Your task to perform on an android device: turn on the 24-hour format for clock Image 0: 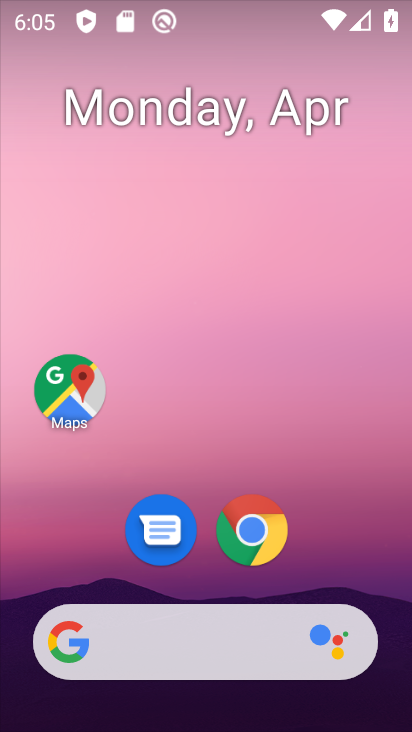
Step 0: drag from (214, 506) to (269, 115)
Your task to perform on an android device: turn on the 24-hour format for clock Image 1: 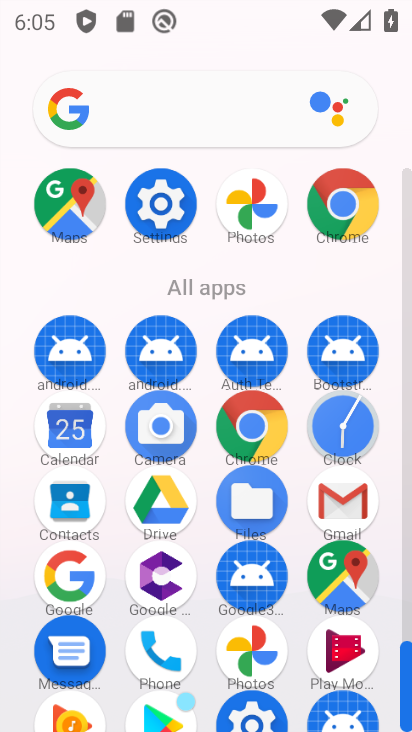
Step 1: click (341, 418)
Your task to perform on an android device: turn on the 24-hour format for clock Image 2: 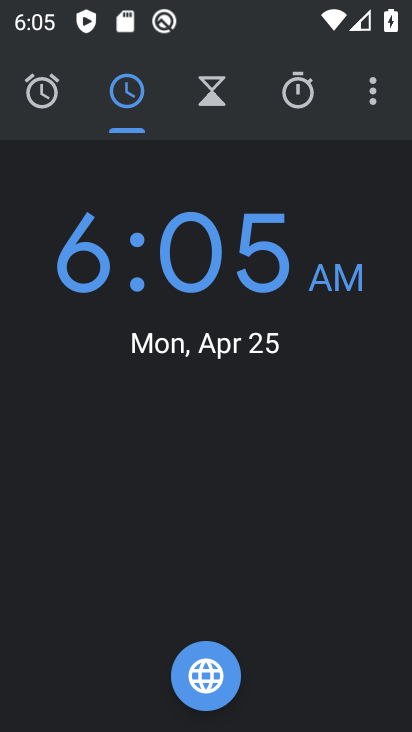
Step 2: click (374, 88)
Your task to perform on an android device: turn on the 24-hour format for clock Image 3: 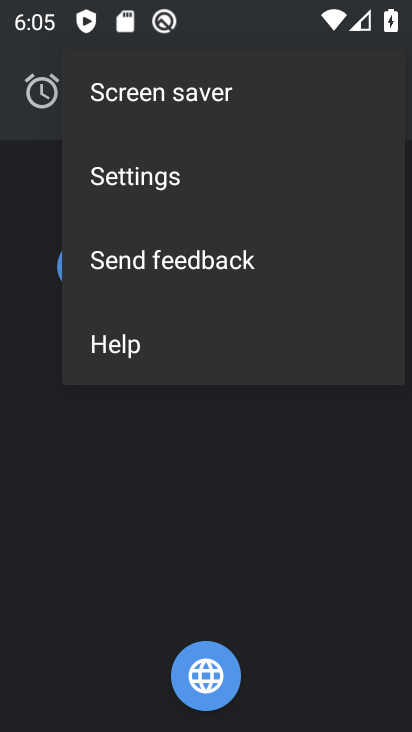
Step 3: click (192, 173)
Your task to perform on an android device: turn on the 24-hour format for clock Image 4: 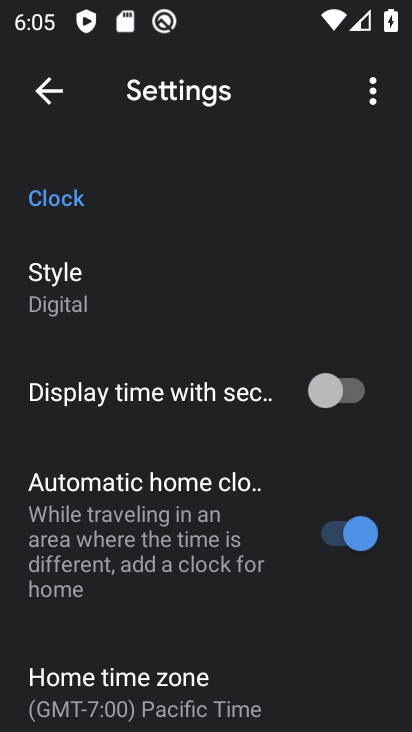
Step 4: drag from (185, 613) to (201, 240)
Your task to perform on an android device: turn on the 24-hour format for clock Image 5: 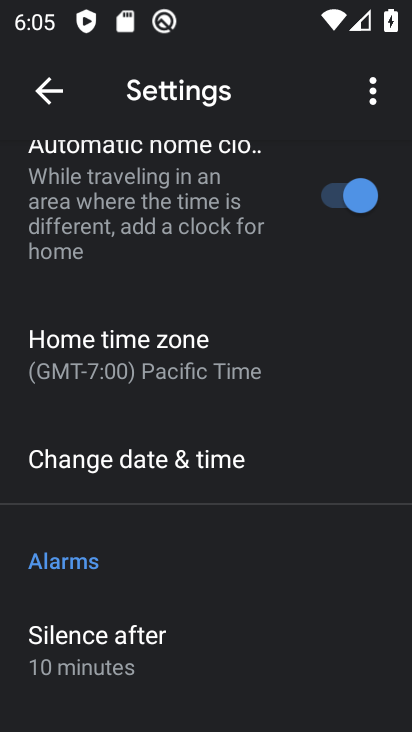
Step 5: click (262, 469)
Your task to perform on an android device: turn on the 24-hour format for clock Image 6: 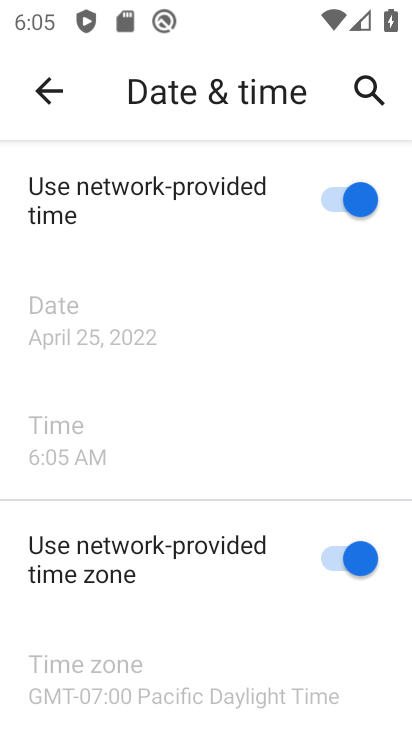
Step 6: drag from (175, 617) to (173, 217)
Your task to perform on an android device: turn on the 24-hour format for clock Image 7: 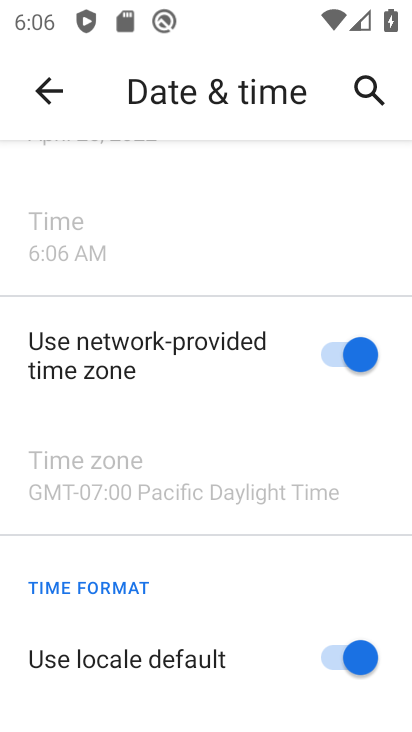
Step 7: drag from (253, 338) to (254, 265)
Your task to perform on an android device: turn on the 24-hour format for clock Image 8: 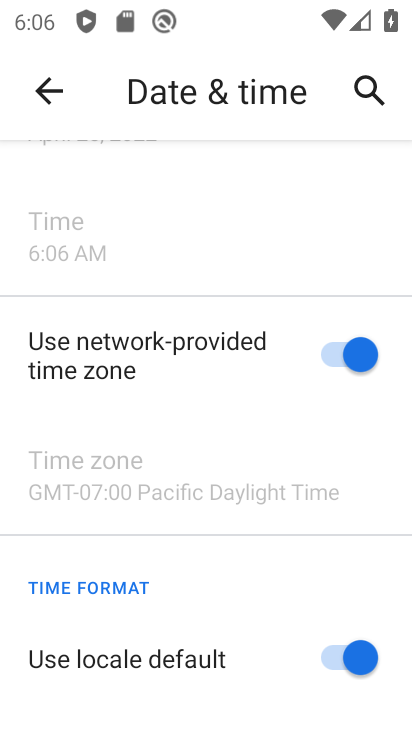
Step 8: click (337, 651)
Your task to perform on an android device: turn on the 24-hour format for clock Image 9: 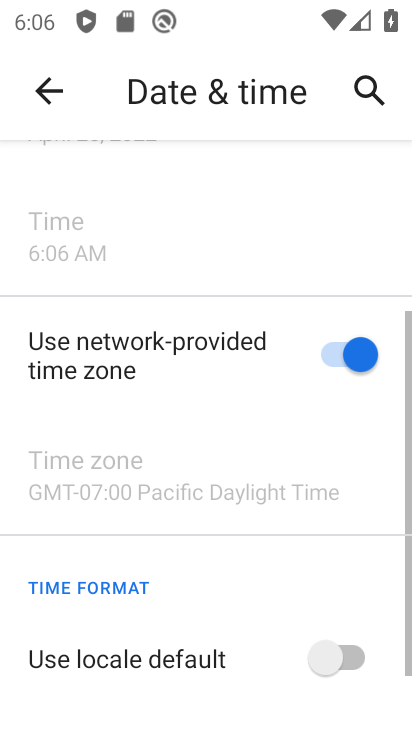
Step 9: drag from (246, 638) to (264, 107)
Your task to perform on an android device: turn on the 24-hour format for clock Image 10: 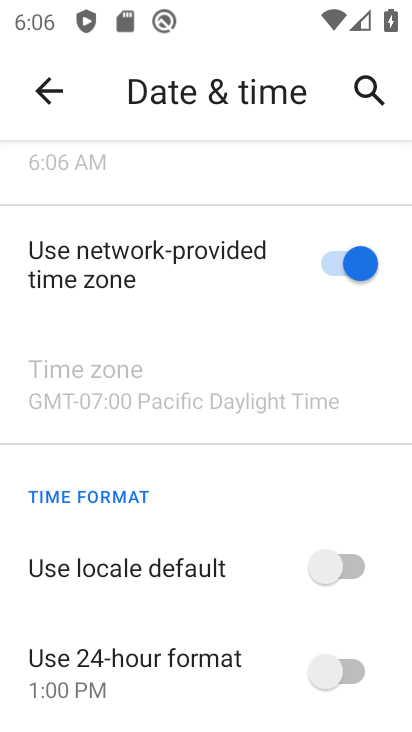
Step 10: click (348, 663)
Your task to perform on an android device: turn on the 24-hour format for clock Image 11: 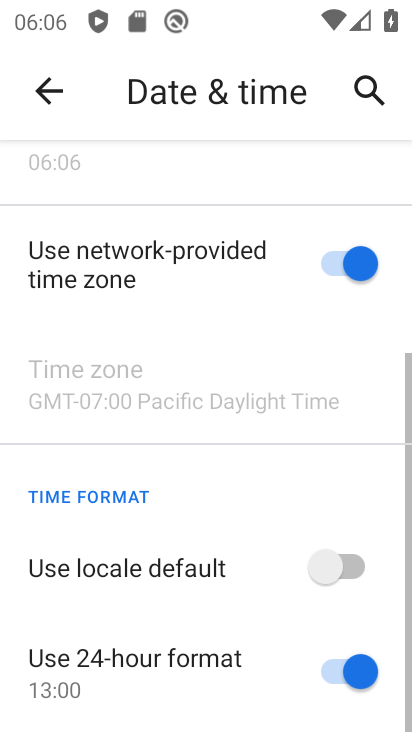
Step 11: task complete